Your task to perform on an android device: toggle notification dots Image 0: 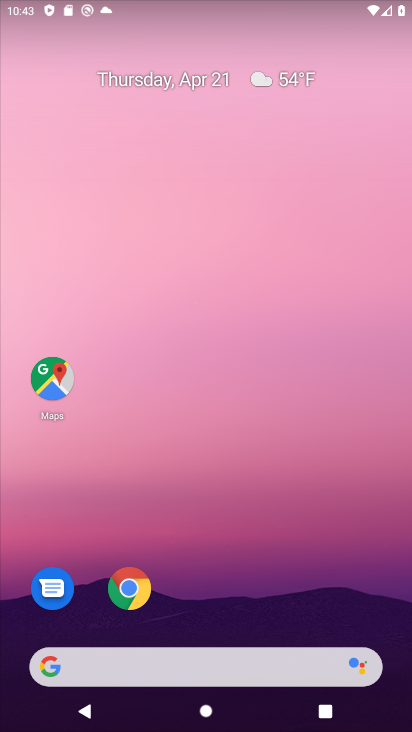
Step 0: drag from (322, 589) to (40, 167)
Your task to perform on an android device: toggle notification dots Image 1: 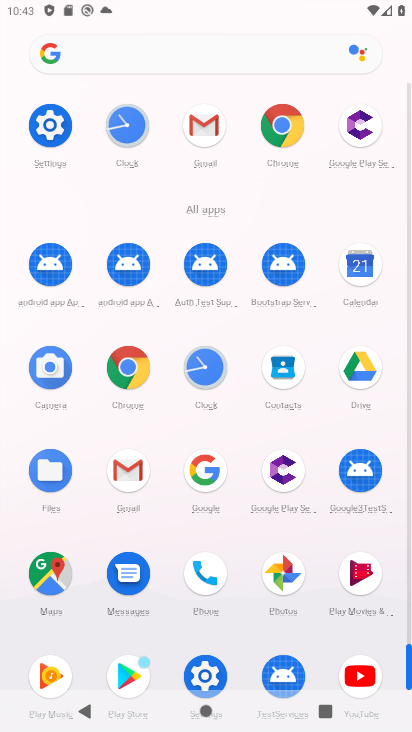
Step 1: click (57, 152)
Your task to perform on an android device: toggle notification dots Image 2: 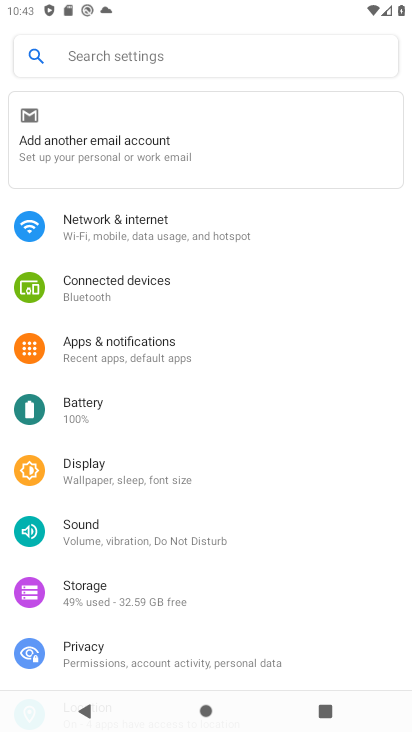
Step 2: click (116, 355)
Your task to perform on an android device: toggle notification dots Image 3: 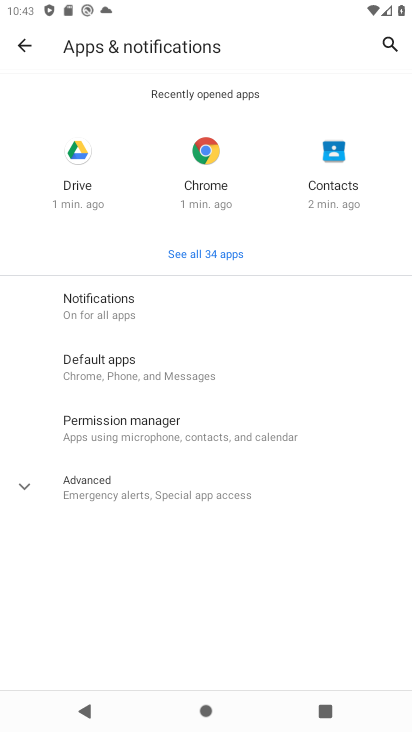
Step 3: click (89, 287)
Your task to perform on an android device: toggle notification dots Image 4: 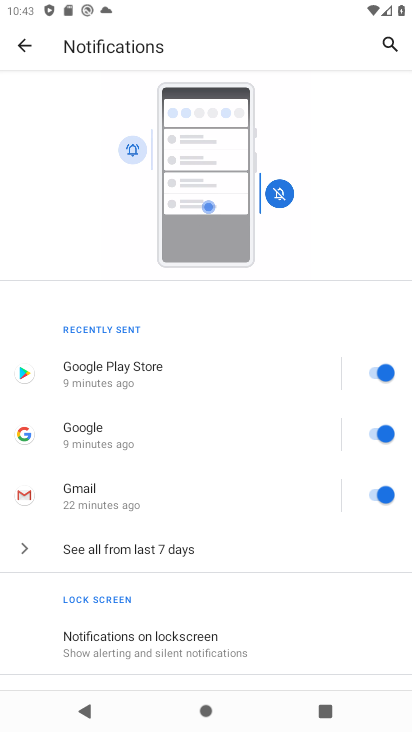
Step 4: drag from (263, 593) to (230, 241)
Your task to perform on an android device: toggle notification dots Image 5: 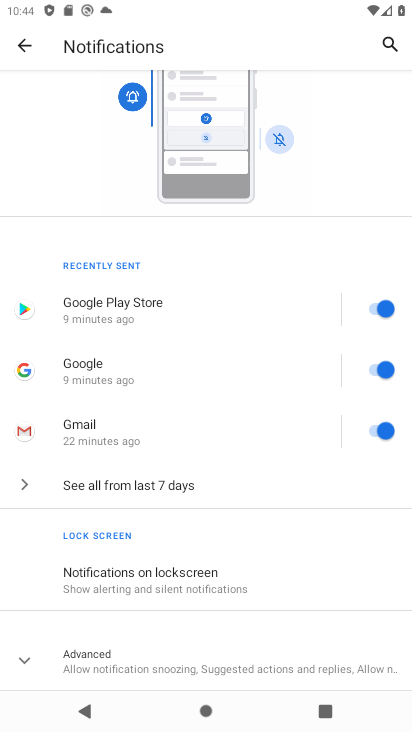
Step 5: click (122, 668)
Your task to perform on an android device: toggle notification dots Image 6: 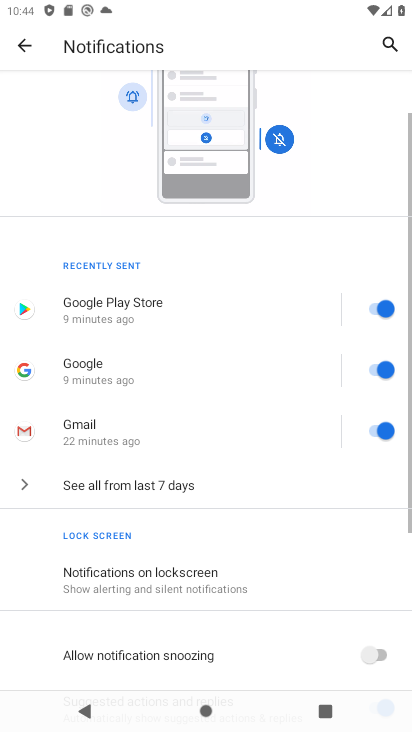
Step 6: drag from (250, 634) to (225, 135)
Your task to perform on an android device: toggle notification dots Image 7: 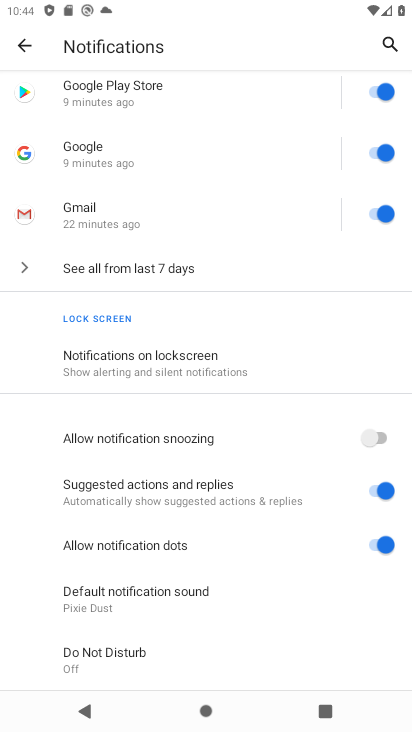
Step 7: click (388, 546)
Your task to perform on an android device: toggle notification dots Image 8: 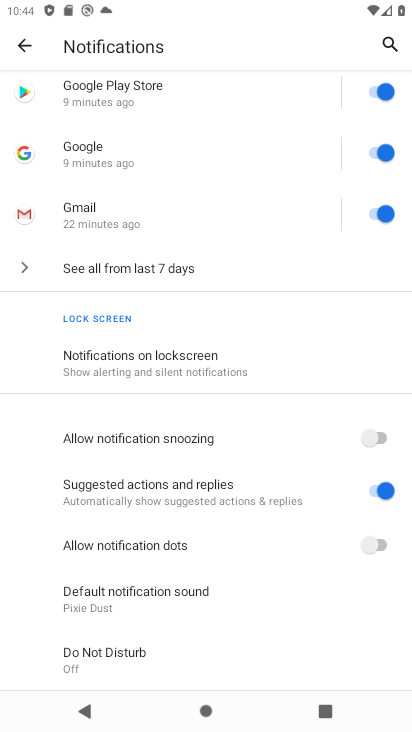
Step 8: task complete